Your task to perform on an android device: Open calendar and show me the fourth week of next month Image 0: 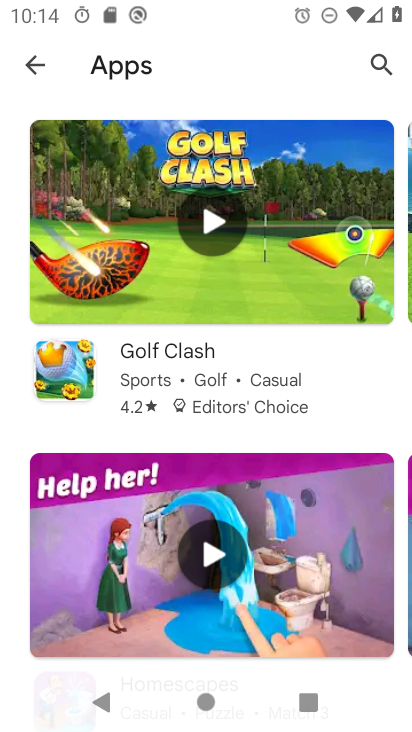
Step 0: press home button
Your task to perform on an android device: Open calendar and show me the fourth week of next month Image 1: 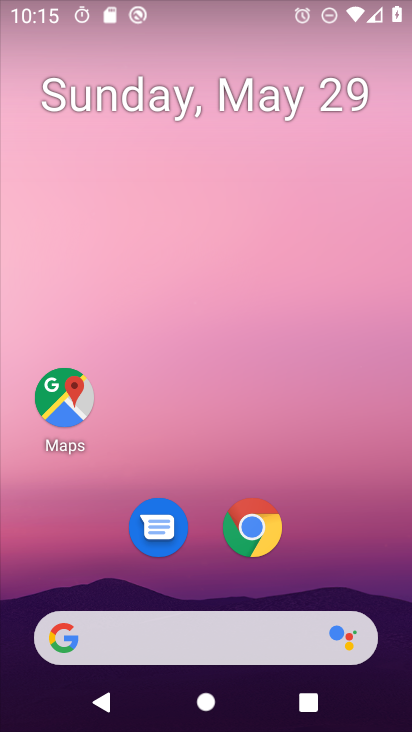
Step 1: drag from (386, 610) to (324, 104)
Your task to perform on an android device: Open calendar and show me the fourth week of next month Image 2: 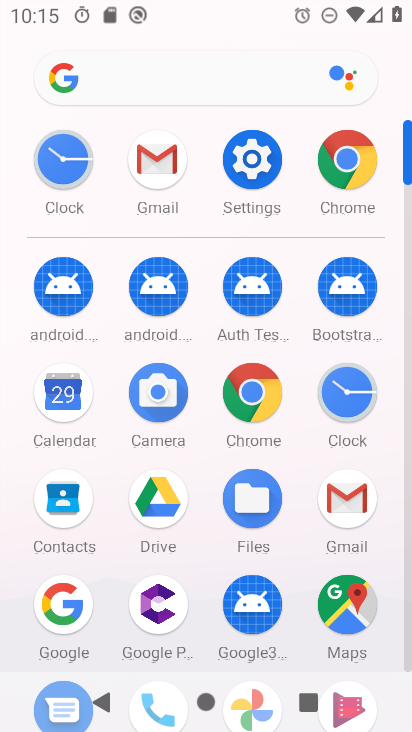
Step 2: click (58, 421)
Your task to perform on an android device: Open calendar and show me the fourth week of next month Image 3: 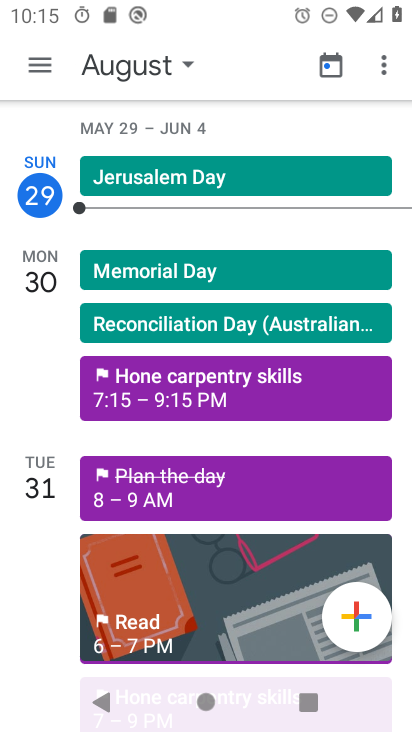
Step 3: click (126, 69)
Your task to perform on an android device: Open calendar and show me the fourth week of next month Image 4: 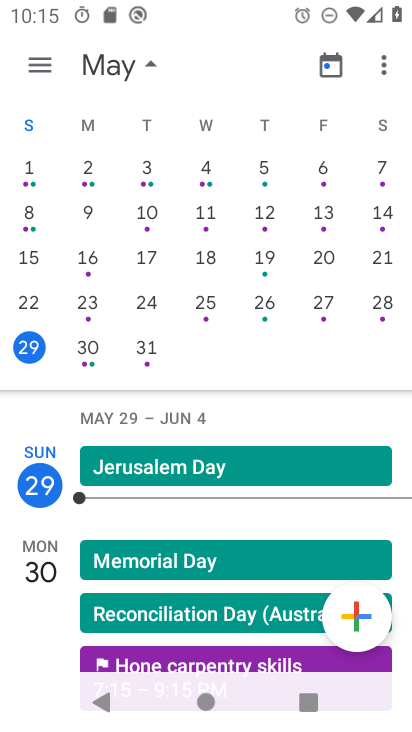
Step 4: drag from (396, 265) to (63, 196)
Your task to perform on an android device: Open calendar and show me the fourth week of next month Image 5: 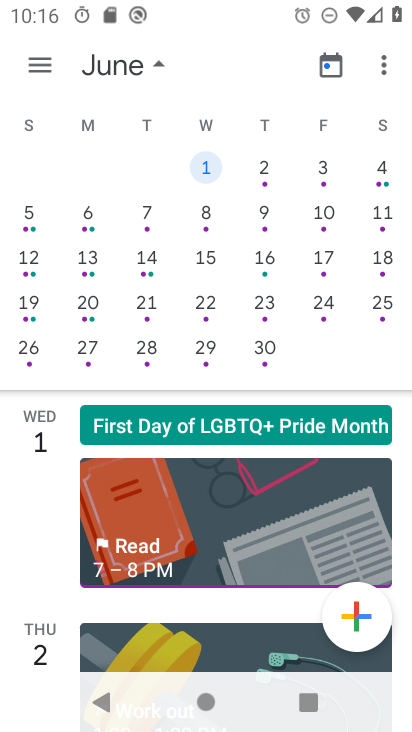
Step 5: click (146, 359)
Your task to perform on an android device: Open calendar and show me the fourth week of next month Image 6: 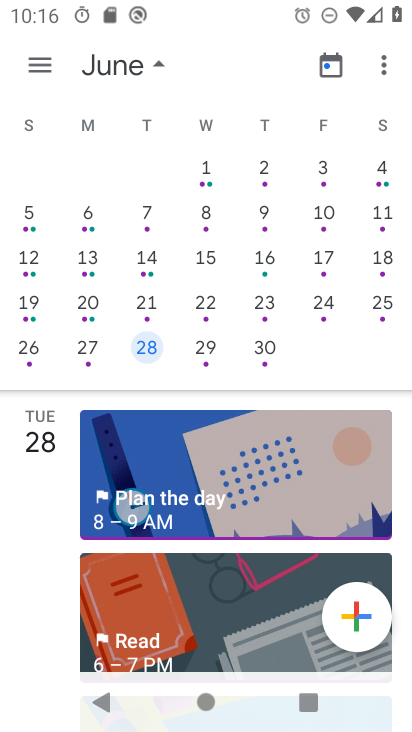
Step 6: task complete